Your task to perform on an android device: What is the news today? Image 0: 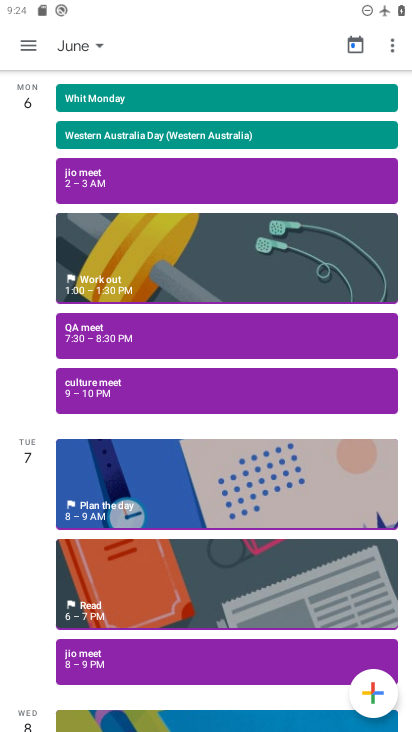
Step 0: press home button
Your task to perform on an android device: What is the news today? Image 1: 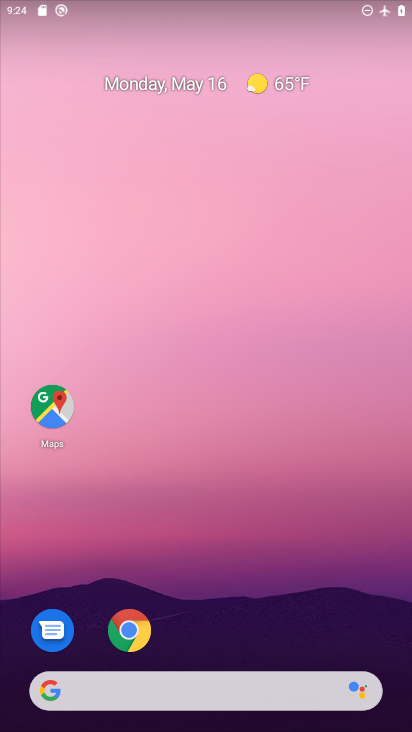
Step 1: drag from (204, 630) to (204, 259)
Your task to perform on an android device: What is the news today? Image 2: 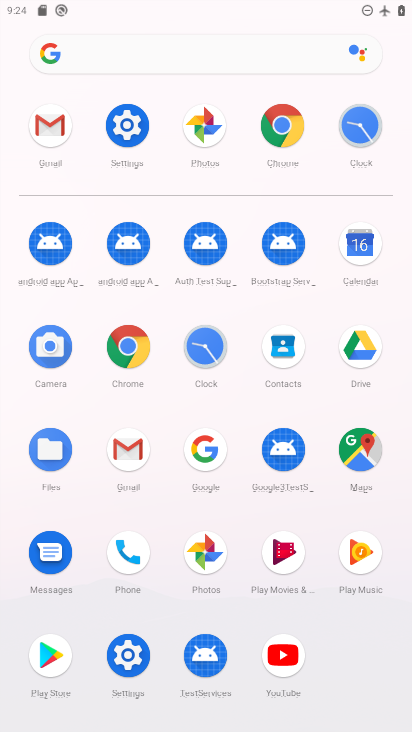
Step 2: click (195, 443)
Your task to perform on an android device: What is the news today? Image 3: 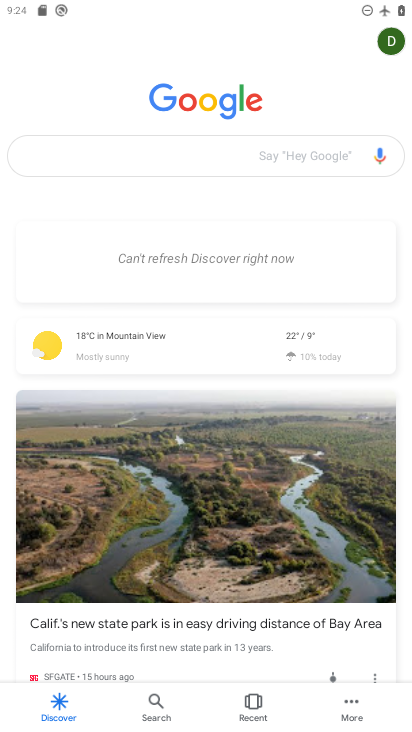
Step 3: click (145, 163)
Your task to perform on an android device: What is the news today? Image 4: 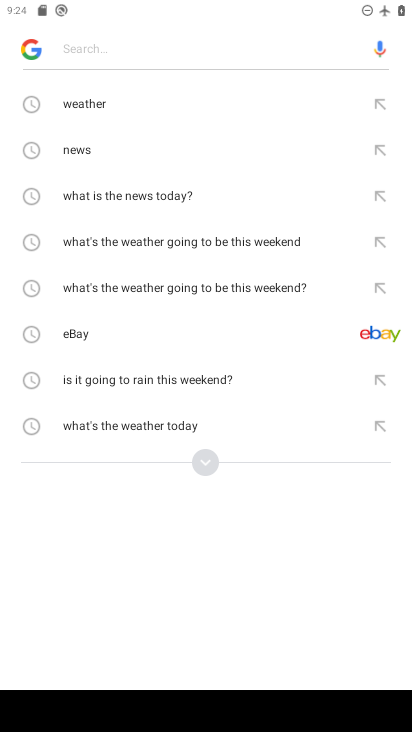
Step 4: click (97, 148)
Your task to perform on an android device: What is the news today? Image 5: 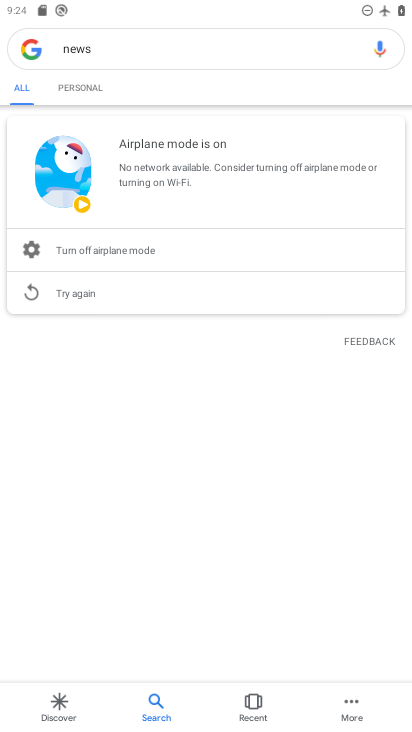
Step 5: task complete